Your task to perform on an android device: turn on translation in the chrome app Image 0: 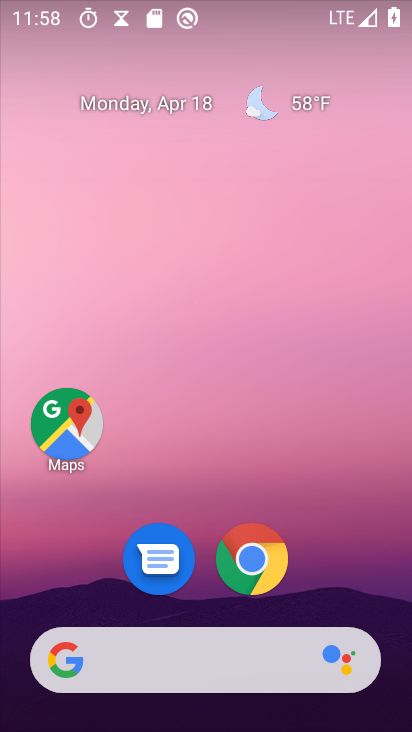
Step 0: click (265, 557)
Your task to perform on an android device: turn on translation in the chrome app Image 1: 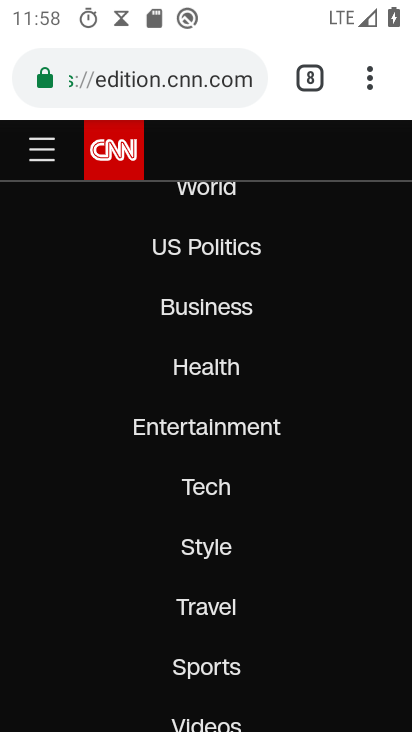
Step 1: click (362, 77)
Your task to perform on an android device: turn on translation in the chrome app Image 2: 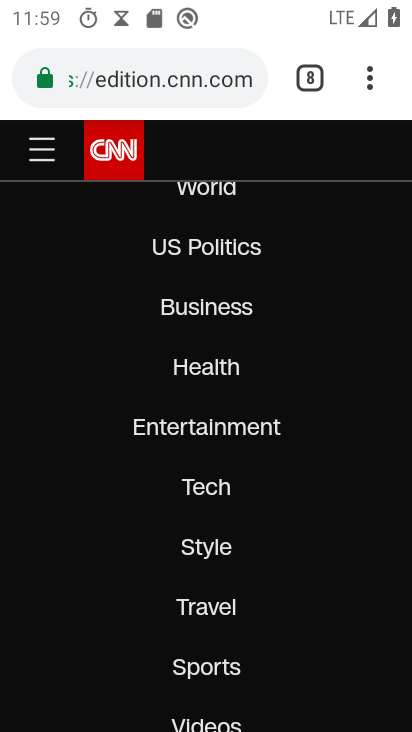
Step 2: click (378, 69)
Your task to perform on an android device: turn on translation in the chrome app Image 3: 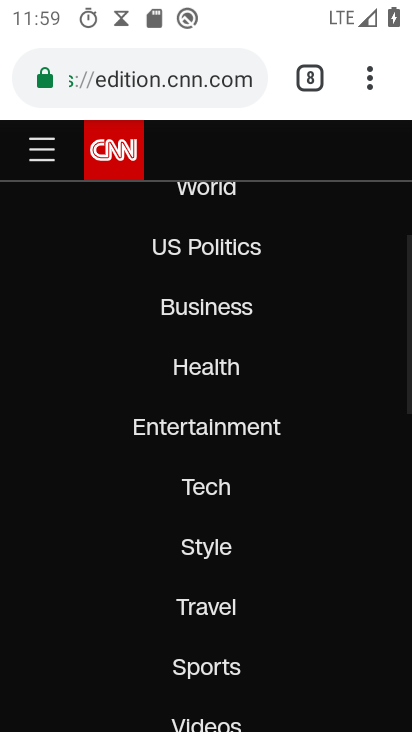
Step 3: click (368, 77)
Your task to perform on an android device: turn on translation in the chrome app Image 4: 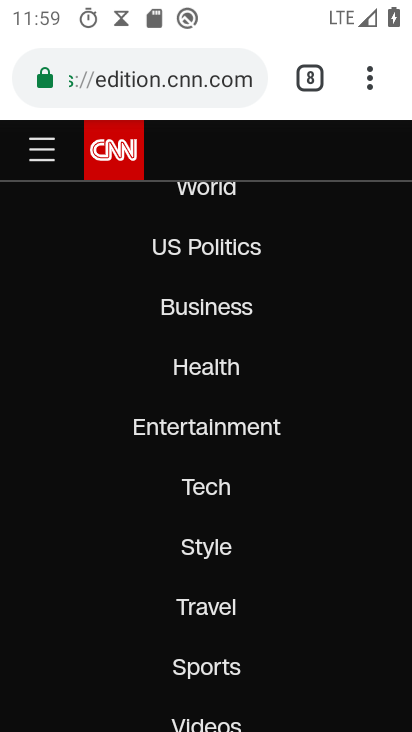
Step 4: click (368, 77)
Your task to perform on an android device: turn on translation in the chrome app Image 5: 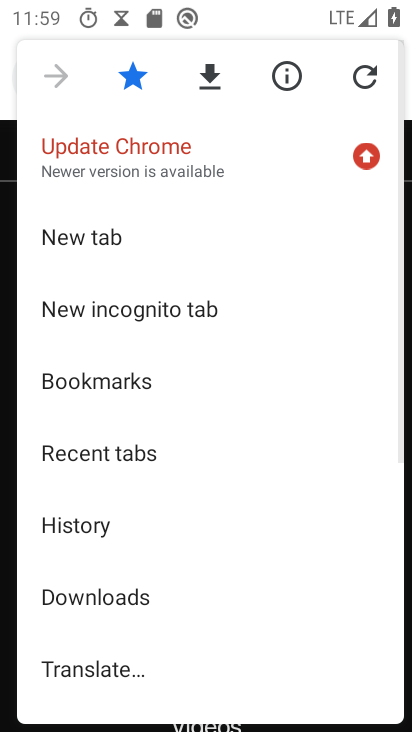
Step 5: drag from (147, 614) to (150, 351)
Your task to perform on an android device: turn on translation in the chrome app Image 6: 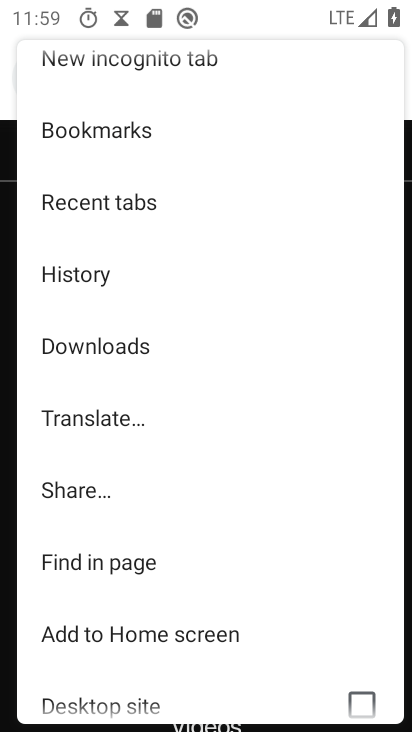
Step 6: drag from (133, 635) to (146, 384)
Your task to perform on an android device: turn on translation in the chrome app Image 7: 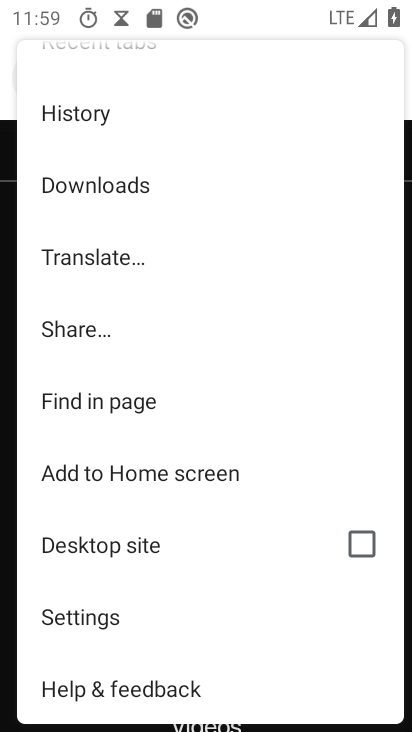
Step 7: click (107, 611)
Your task to perform on an android device: turn on translation in the chrome app Image 8: 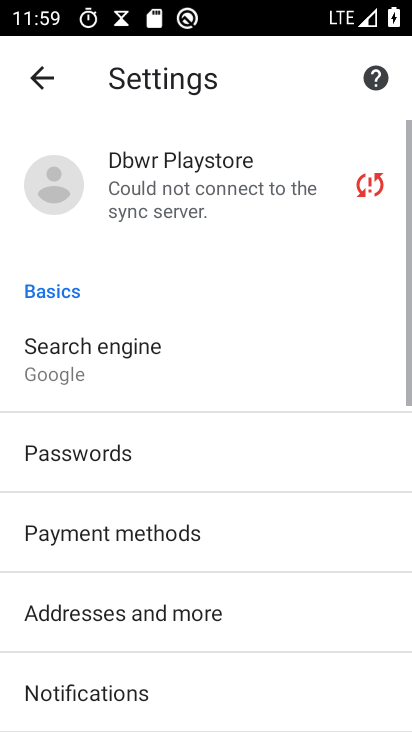
Step 8: drag from (107, 611) to (156, 168)
Your task to perform on an android device: turn on translation in the chrome app Image 9: 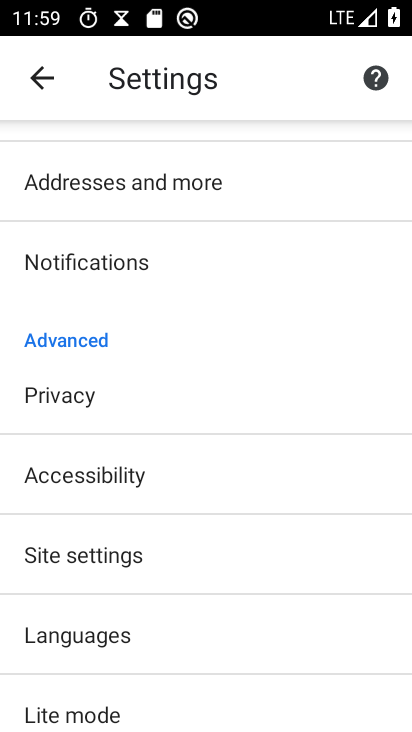
Step 9: click (45, 631)
Your task to perform on an android device: turn on translation in the chrome app Image 10: 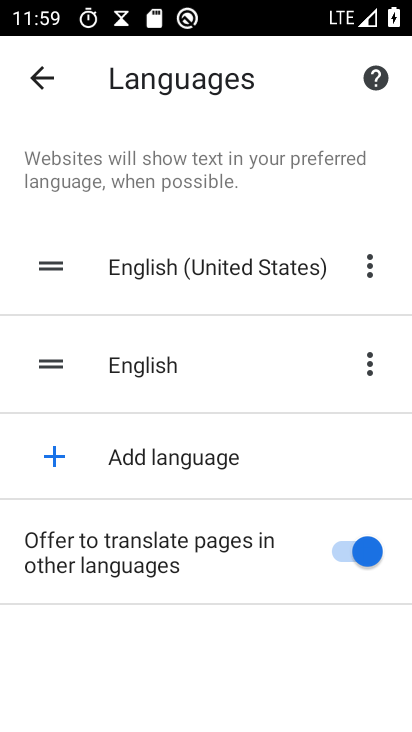
Step 10: task complete